Your task to perform on an android device: Search for Italian restaurants on Maps Image 0: 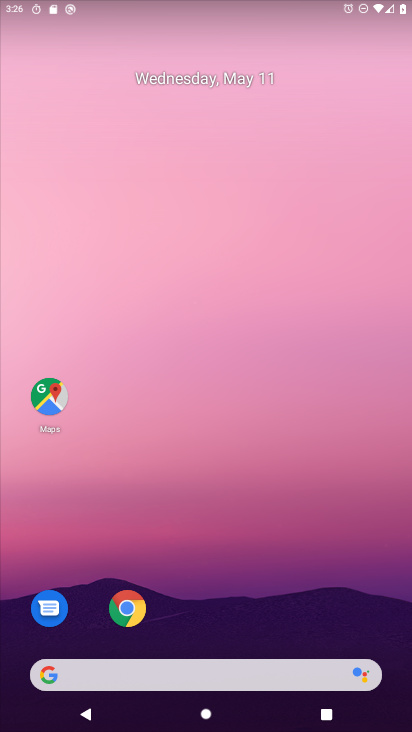
Step 0: drag from (181, 614) to (260, 97)
Your task to perform on an android device: Search for Italian restaurants on Maps Image 1: 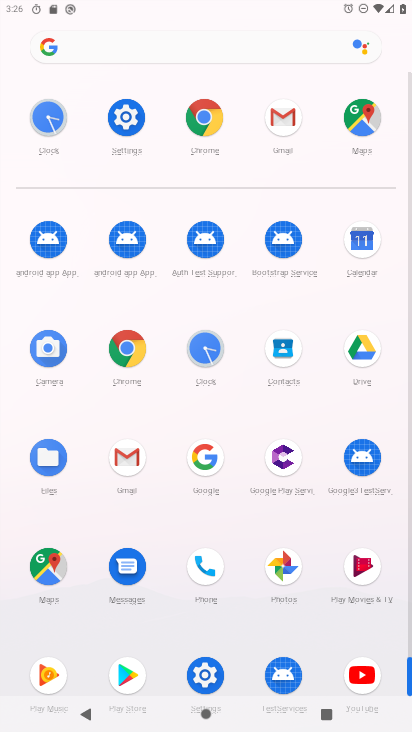
Step 1: click (39, 573)
Your task to perform on an android device: Search for Italian restaurants on Maps Image 2: 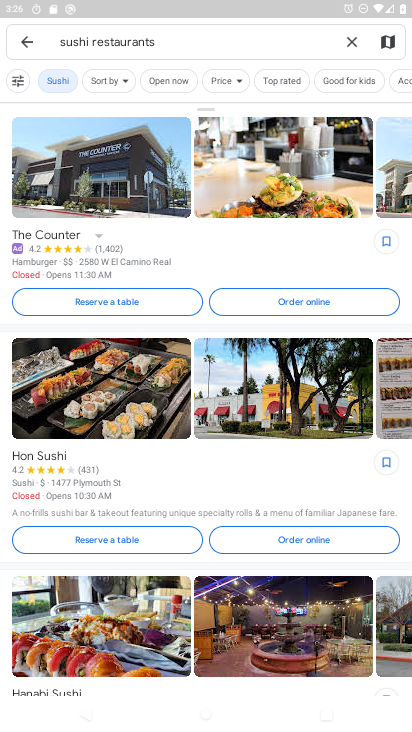
Step 2: click (351, 43)
Your task to perform on an android device: Search for Italian restaurants on Maps Image 3: 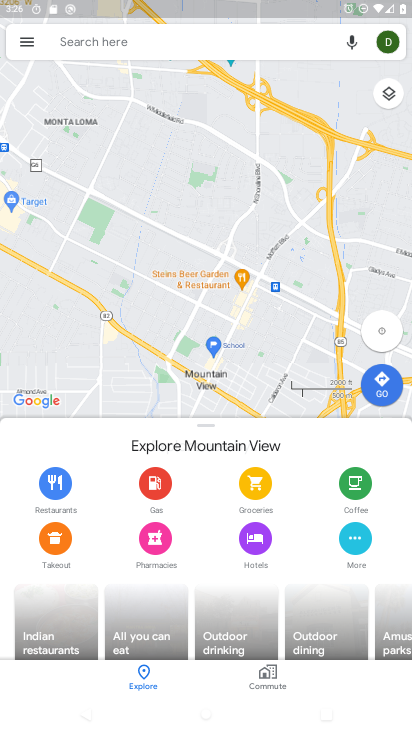
Step 3: click (298, 52)
Your task to perform on an android device: Search for Italian restaurants on Maps Image 4: 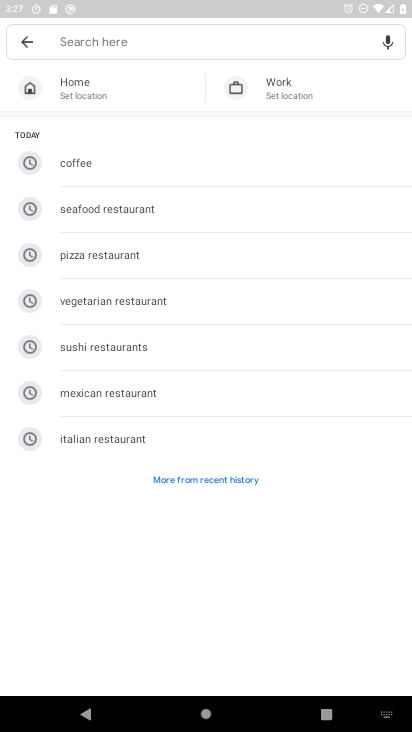
Step 4: type "italian "
Your task to perform on an android device: Search for Italian restaurants on Maps Image 5: 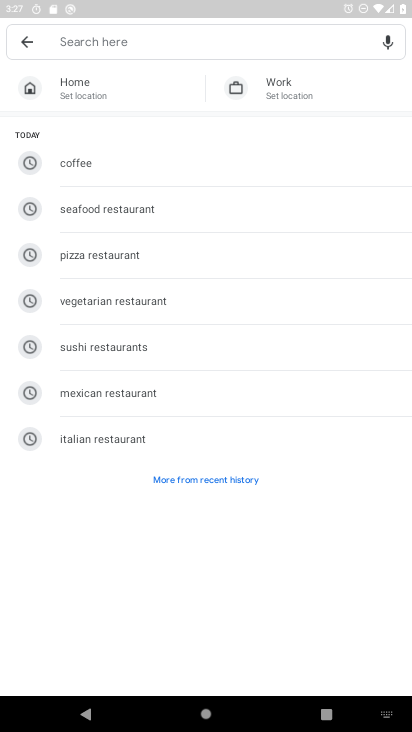
Step 5: click (96, 438)
Your task to perform on an android device: Search for Italian restaurants on Maps Image 6: 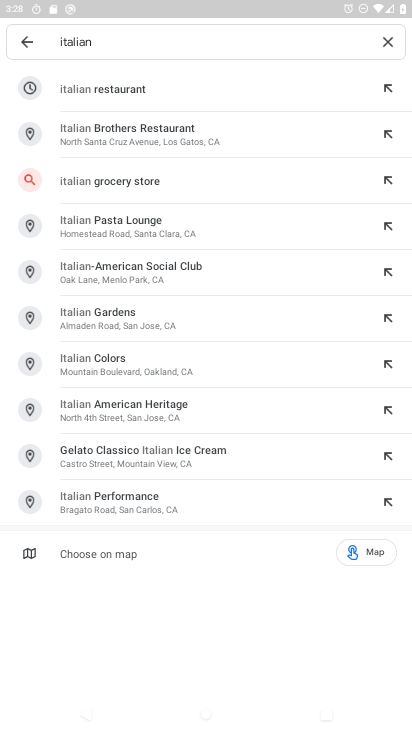
Step 6: click (138, 83)
Your task to perform on an android device: Search for Italian restaurants on Maps Image 7: 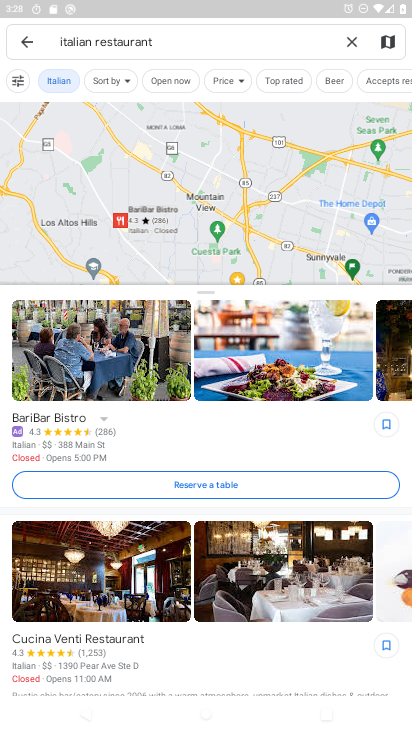
Step 7: task complete